Your task to perform on an android device: Check the news Image 0: 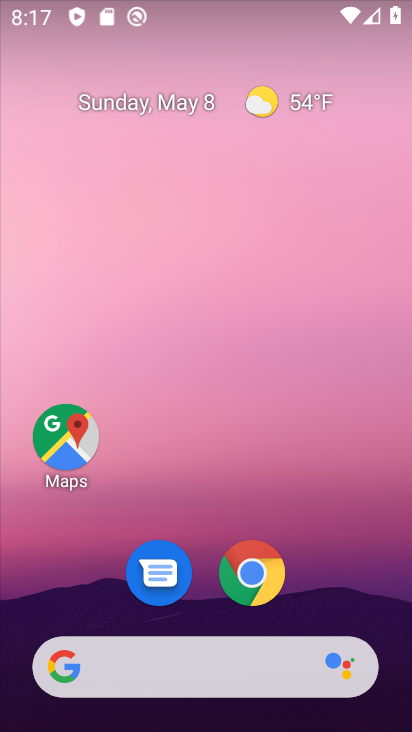
Step 0: drag from (3, 273) to (386, 322)
Your task to perform on an android device: Check the news Image 1: 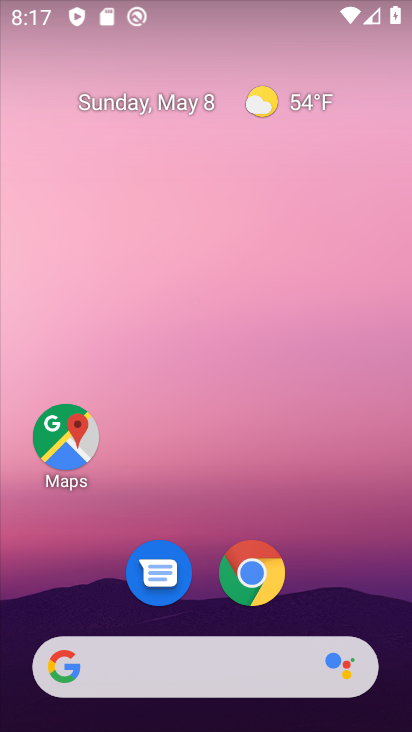
Step 1: task complete